Your task to perform on an android device: Go to display settings Image 0: 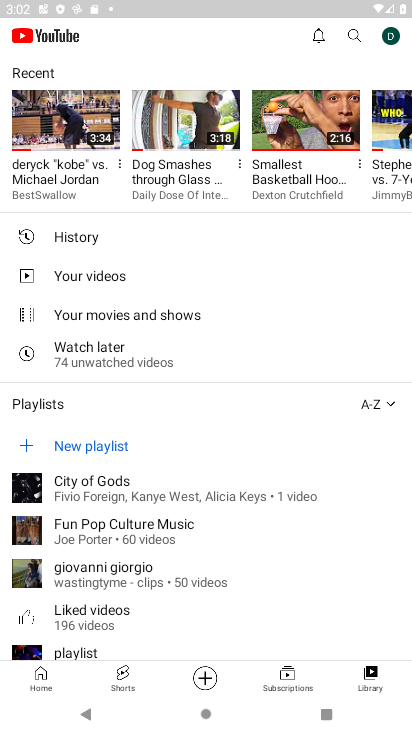
Step 0: press back button
Your task to perform on an android device: Go to display settings Image 1: 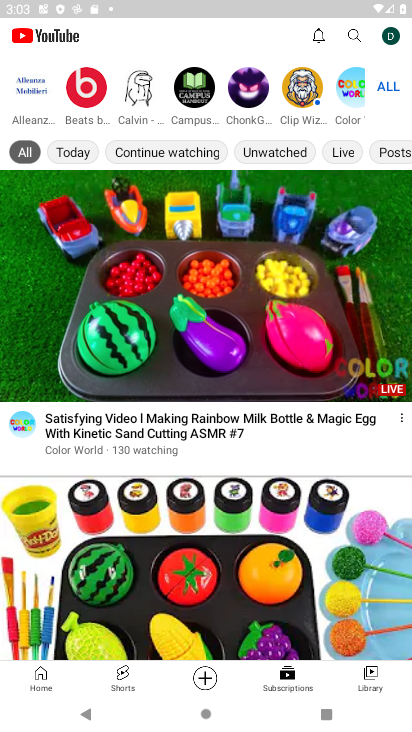
Step 1: press back button
Your task to perform on an android device: Go to display settings Image 2: 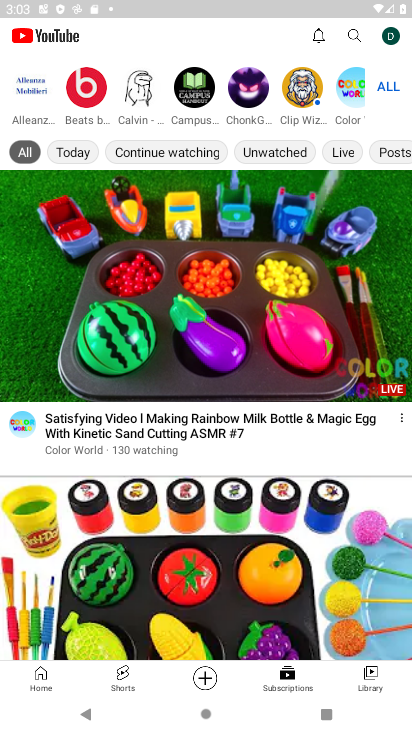
Step 2: press back button
Your task to perform on an android device: Go to display settings Image 3: 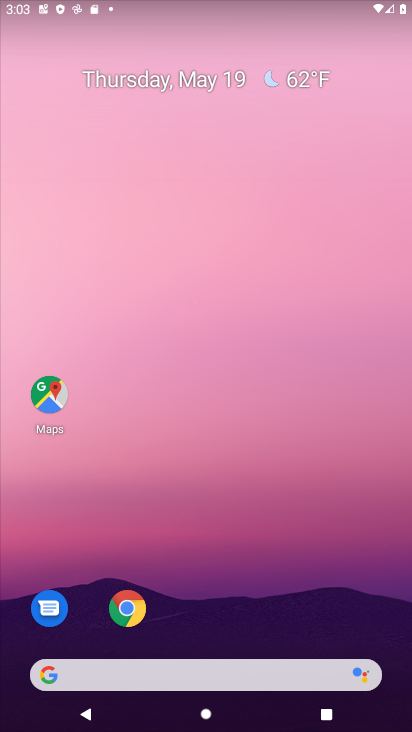
Step 3: drag from (328, 560) to (325, 28)
Your task to perform on an android device: Go to display settings Image 4: 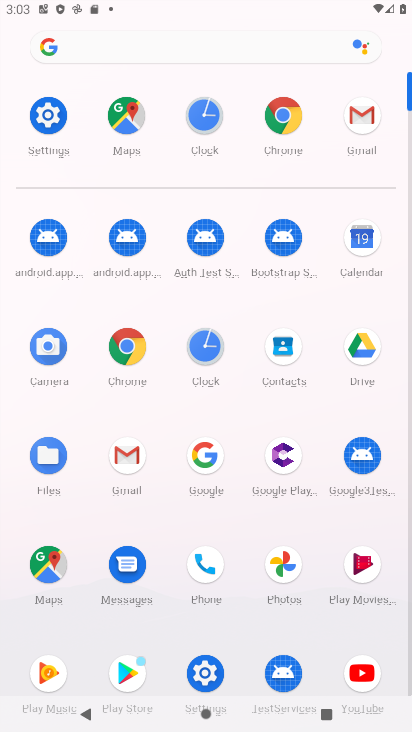
Step 4: click (56, 121)
Your task to perform on an android device: Go to display settings Image 5: 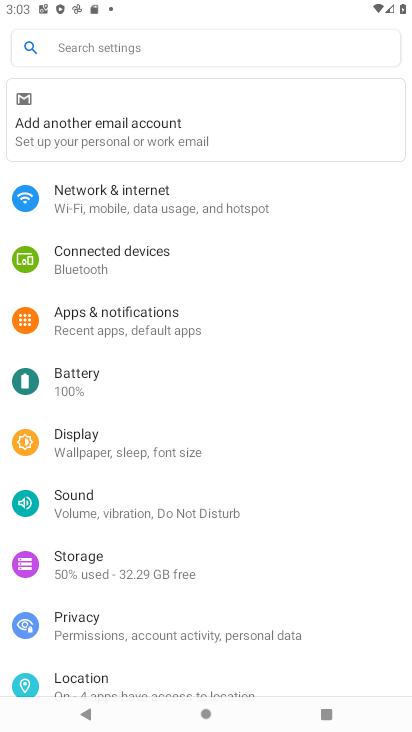
Step 5: click (89, 432)
Your task to perform on an android device: Go to display settings Image 6: 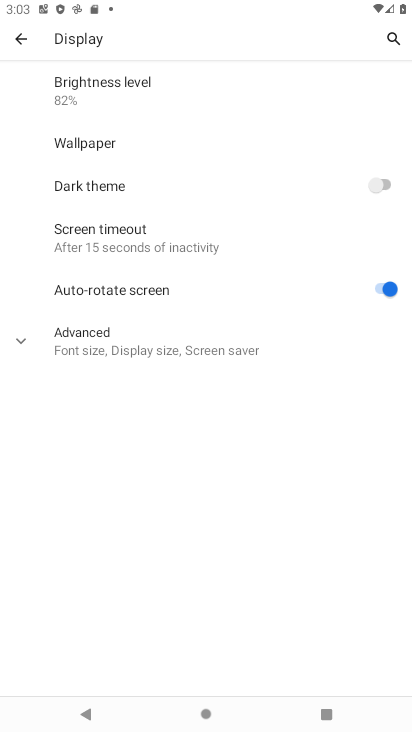
Step 6: task complete